Your task to perform on an android device: open a bookmark in the chrome app Image 0: 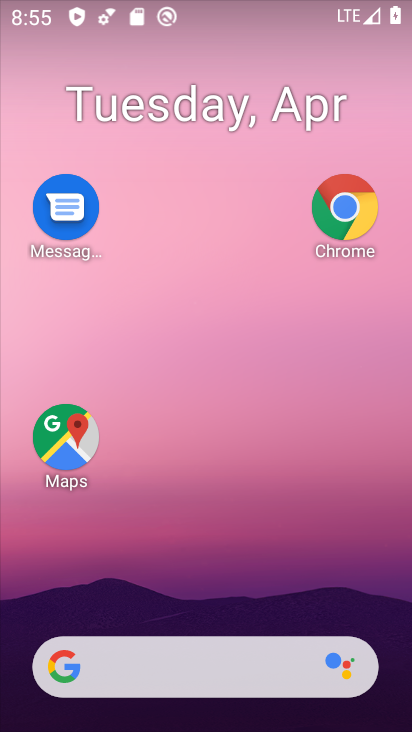
Step 0: drag from (186, 628) to (106, 81)
Your task to perform on an android device: open a bookmark in the chrome app Image 1: 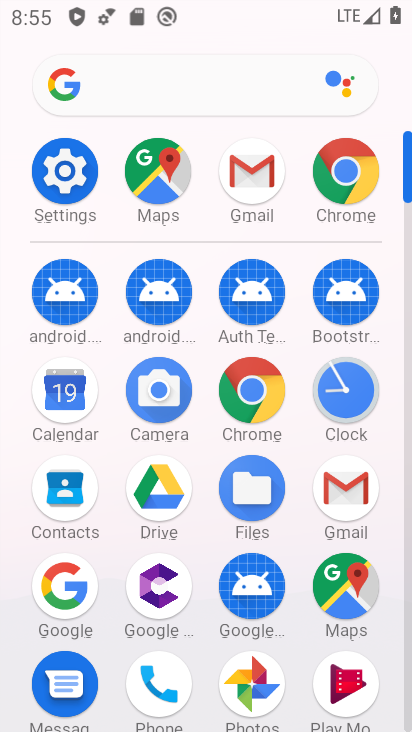
Step 1: click (262, 398)
Your task to perform on an android device: open a bookmark in the chrome app Image 2: 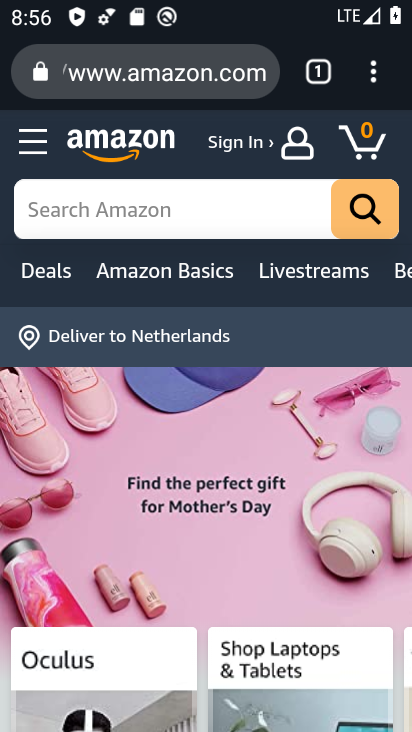
Step 2: click (358, 86)
Your task to perform on an android device: open a bookmark in the chrome app Image 3: 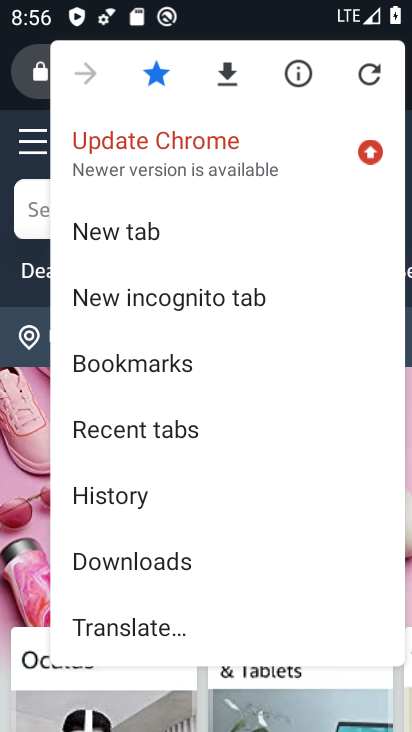
Step 3: click (178, 370)
Your task to perform on an android device: open a bookmark in the chrome app Image 4: 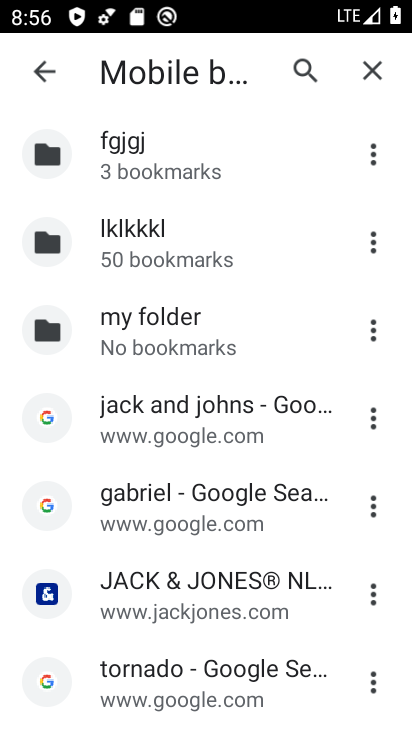
Step 4: task complete